Your task to perform on an android device: What's the weather going to be tomorrow? Image 0: 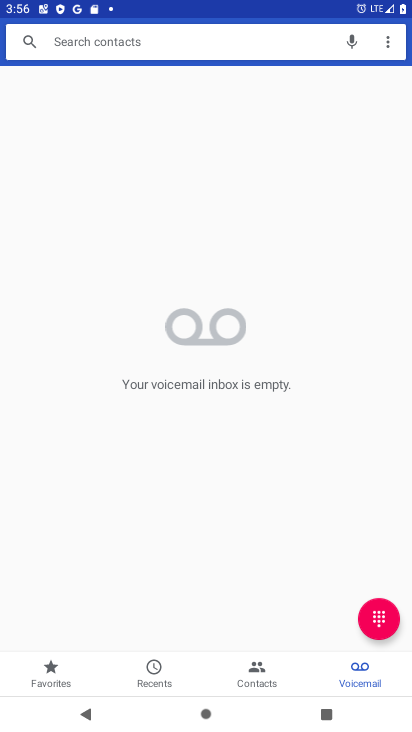
Step 0: press home button
Your task to perform on an android device: What's the weather going to be tomorrow? Image 1: 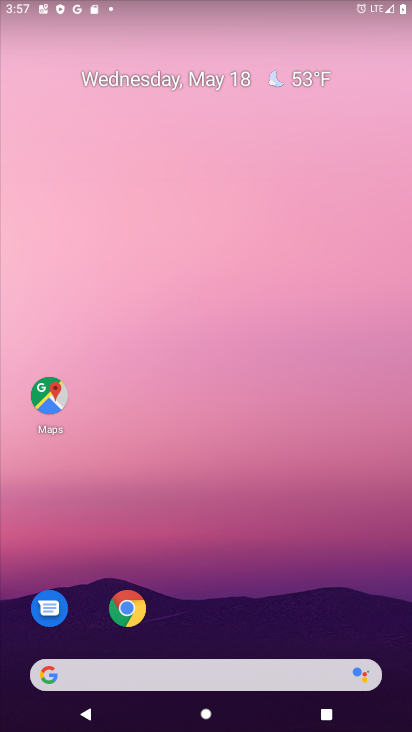
Step 1: click (317, 83)
Your task to perform on an android device: What's the weather going to be tomorrow? Image 2: 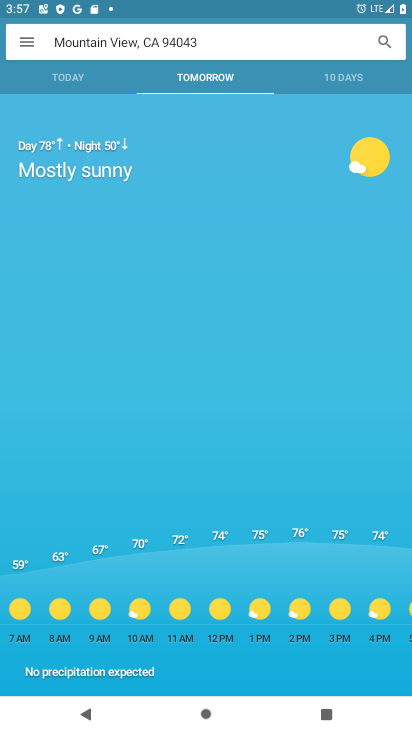
Step 2: task complete